Your task to perform on an android device: Open battery settings Image 0: 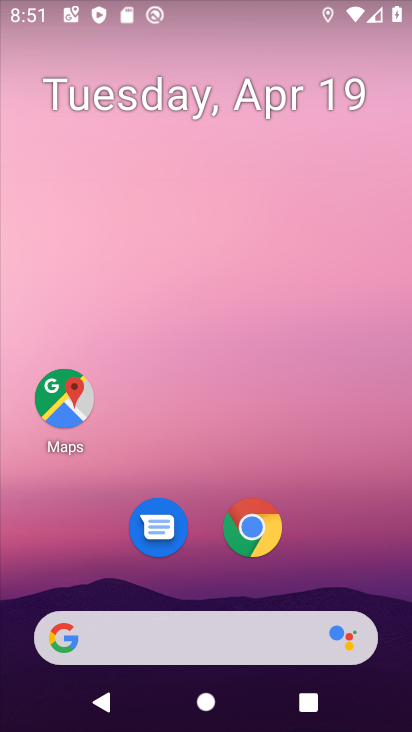
Step 0: drag from (323, 538) to (317, 210)
Your task to perform on an android device: Open battery settings Image 1: 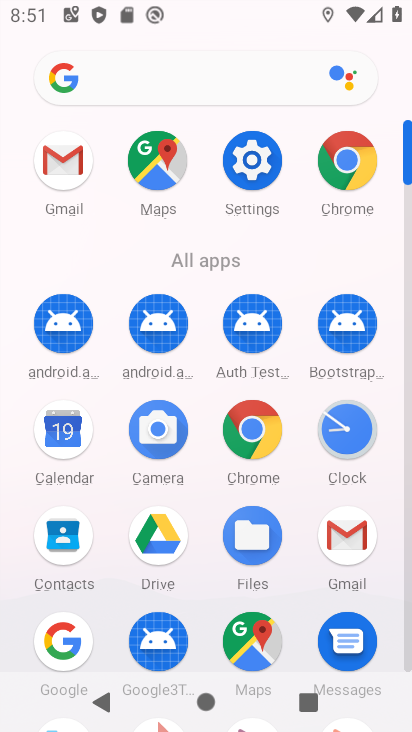
Step 1: click (249, 149)
Your task to perform on an android device: Open battery settings Image 2: 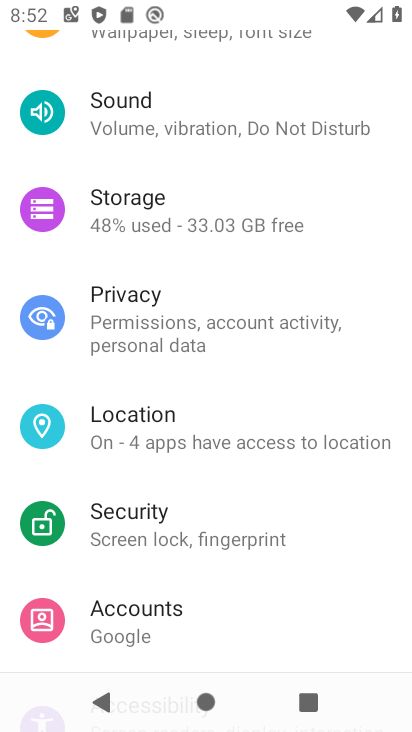
Step 2: drag from (263, 170) to (285, 661)
Your task to perform on an android device: Open battery settings Image 3: 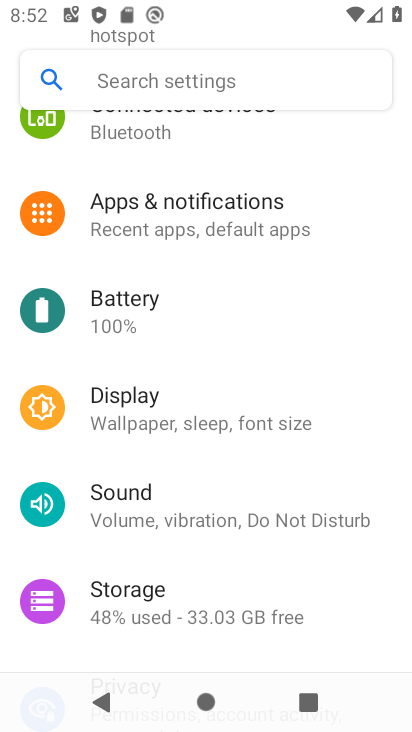
Step 3: click (169, 337)
Your task to perform on an android device: Open battery settings Image 4: 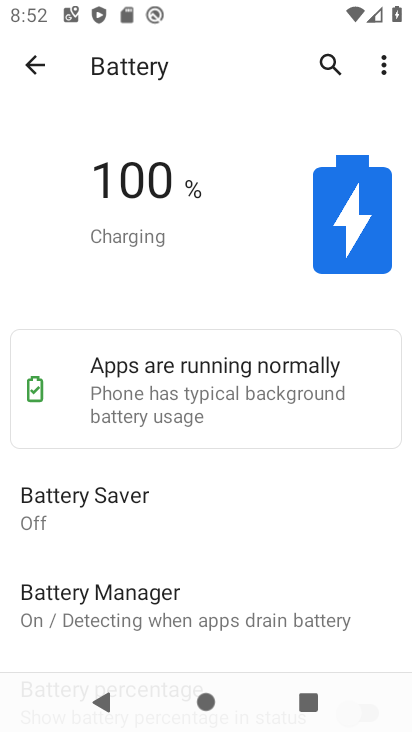
Step 4: drag from (261, 531) to (262, 122)
Your task to perform on an android device: Open battery settings Image 5: 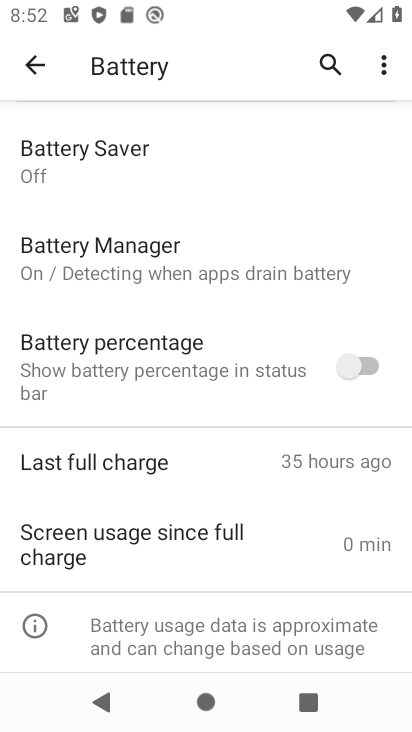
Step 5: drag from (288, 484) to (299, 128)
Your task to perform on an android device: Open battery settings Image 6: 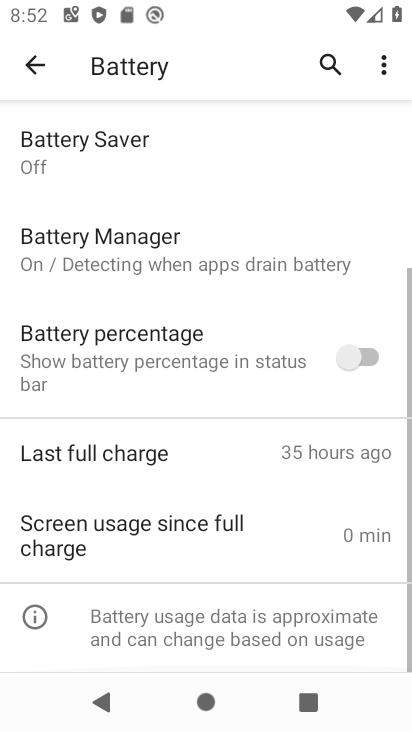
Step 6: click (299, 154)
Your task to perform on an android device: Open battery settings Image 7: 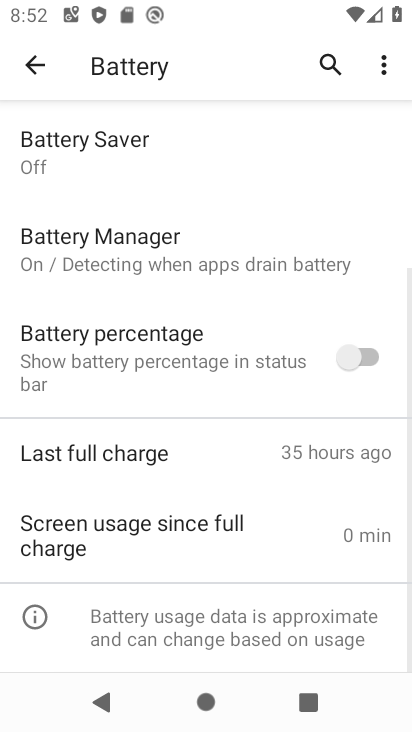
Step 7: drag from (297, 168) to (301, 587)
Your task to perform on an android device: Open battery settings Image 8: 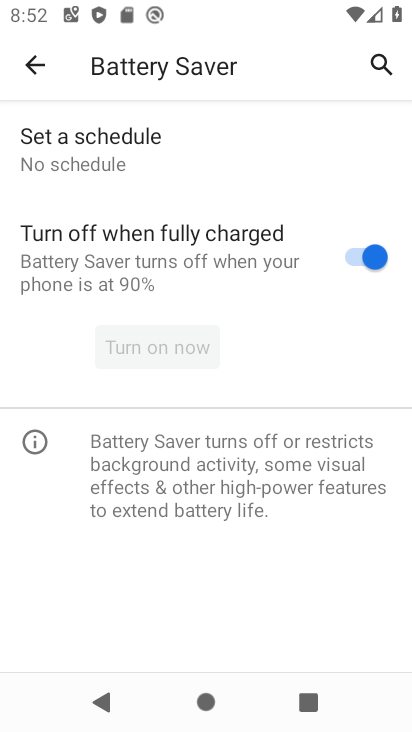
Step 8: click (29, 62)
Your task to perform on an android device: Open battery settings Image 9: 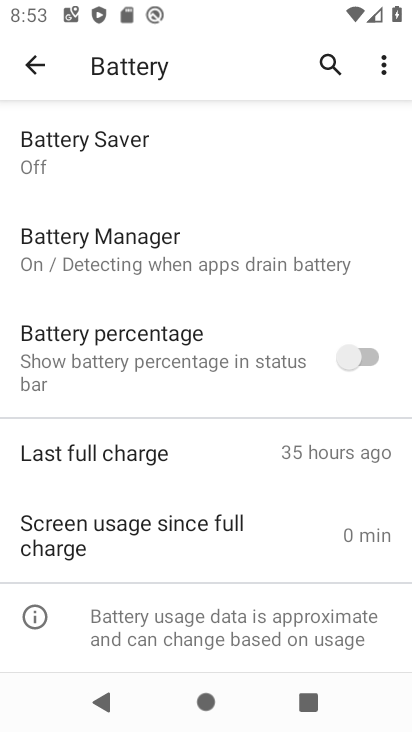
Step 9: task complete